Your task to perform on an android device: Go to Maps Image 0: 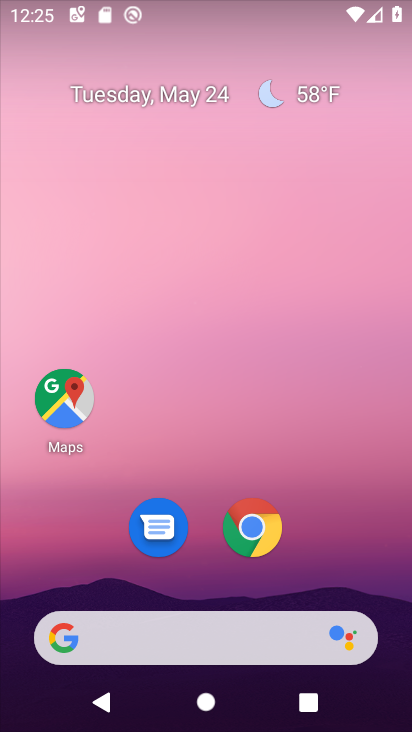
Step 0: click (68, 414)
Your task to perform on an android device: Go to Maps Image 1: 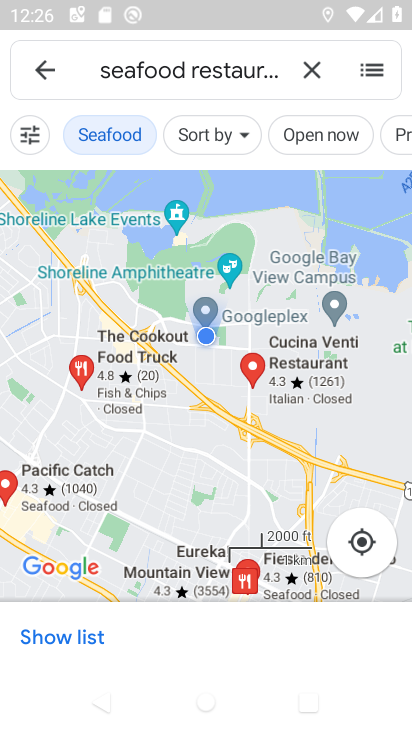
Step 1: task complete